Your task to perform on an android device: Turn on the flashlight Image 0: 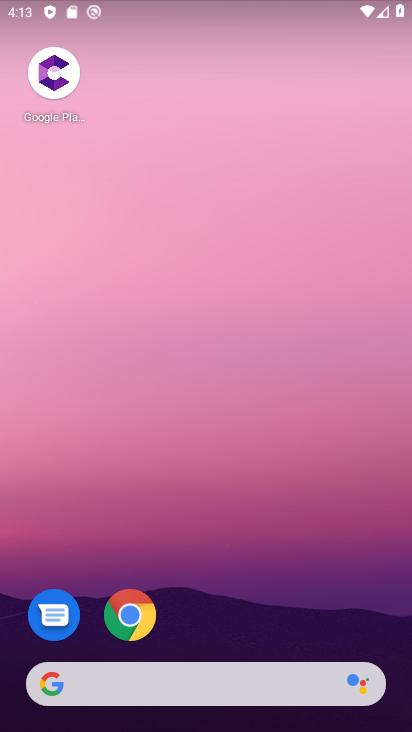
Step 0: drag from (336, 621) to (333, 136)
Your task to perform on an android device: Turn on the flashlight Image 1: 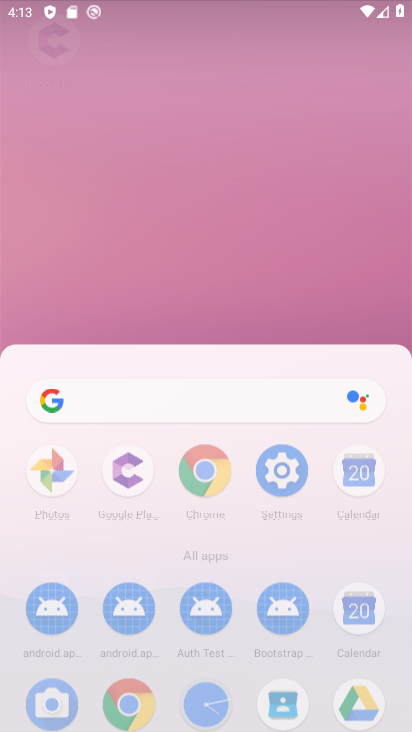
Step 1: click (319, 25)
Your task to perform on an android device: Turn on the flashlight Image 2: 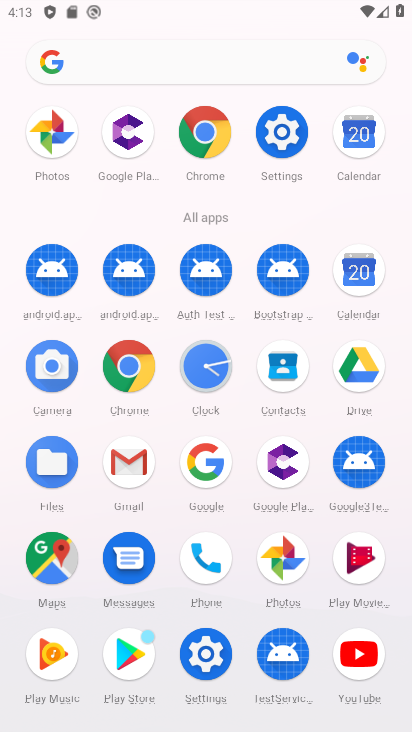
Step 2: click (274, 141)
Your task to perform on an android device: Turn on the flashlight Image 3: 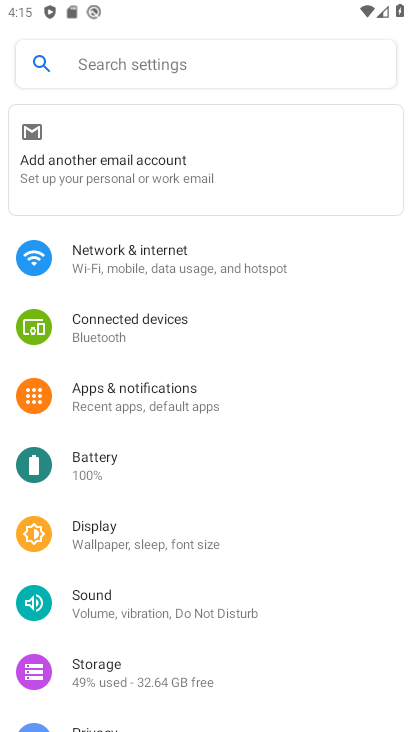
Step 3: task complete